Your task to perform on an android device: Go to ESPN.com Image 0: 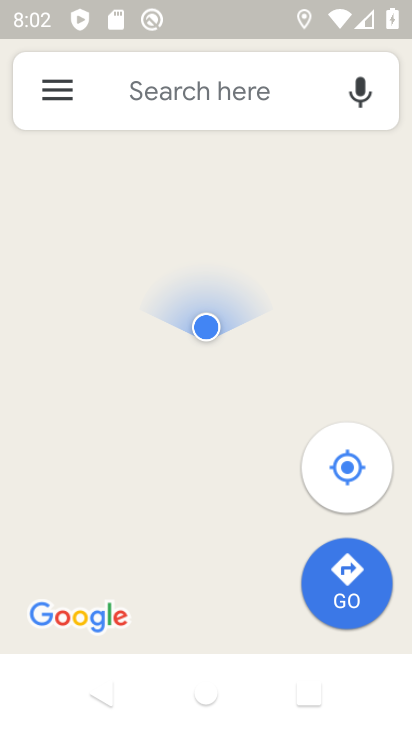
Step 0: press home button
Your task to perform on an android device: Go to ESPN.com Image 1: 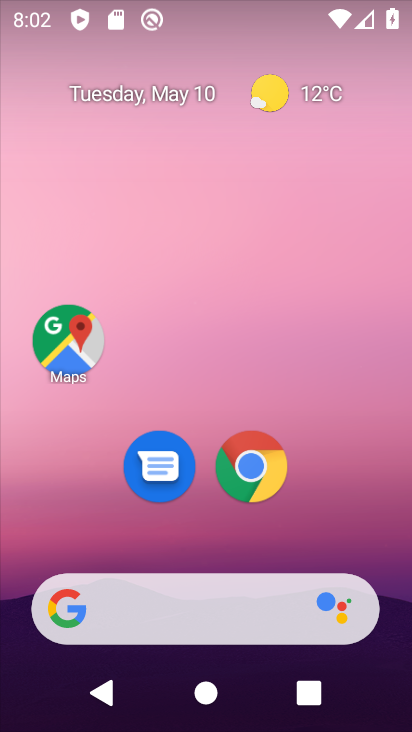
Step 1: click (252, 475)
Your task to perform on an android device: Go to ESPN.com Image 2: 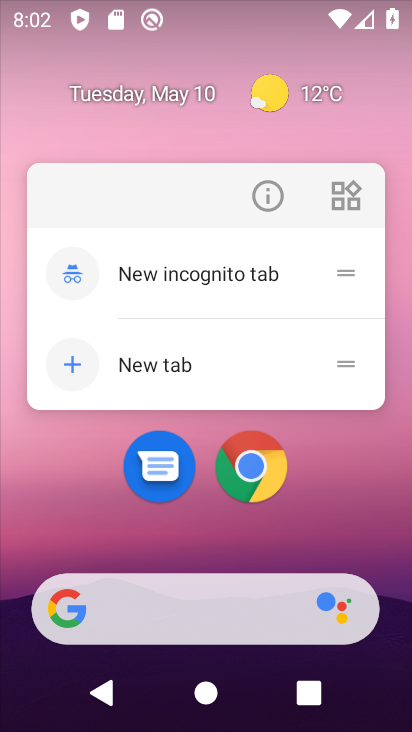
Step 2: click (240, 470)
Your task to perform on an android device: Go to ESPN.com Image 3: 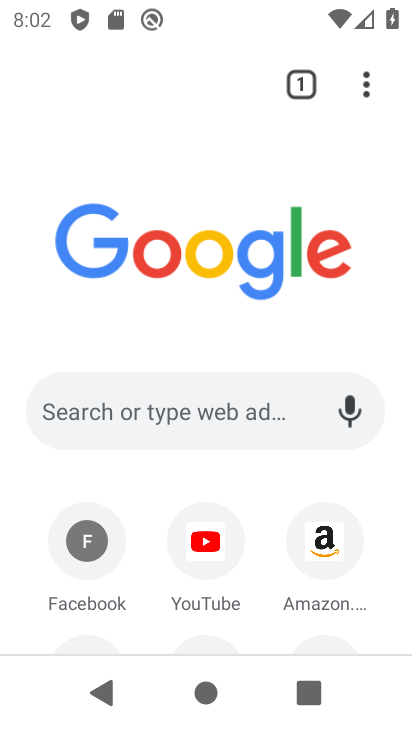
Step 3: click (223, 426)
Your task to perform on an android device: Go to ESPN.com Image 4: 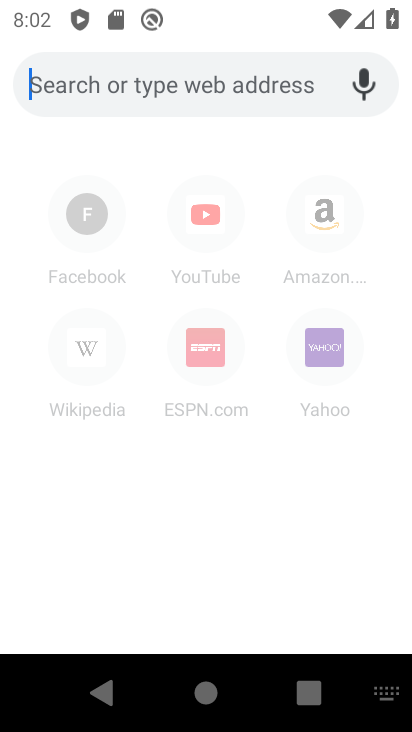
Step 4: type "ESPN.com"
Your task to perform on an android device: Go to ESPN.com Image 5: 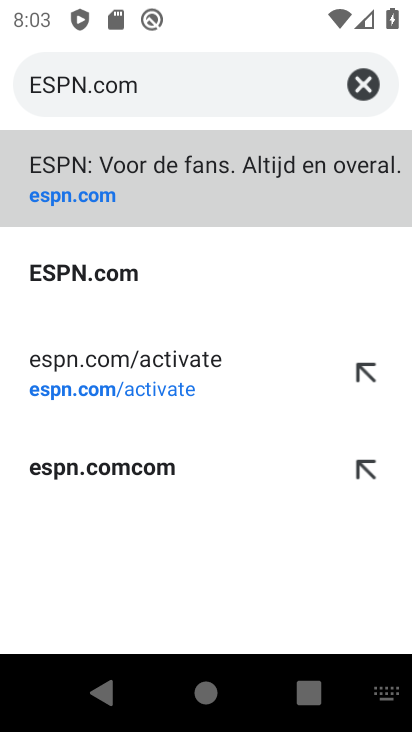
Step 5: click (102, 284)
Your task to perform on an android device: Go to ESPN.com Image 6: 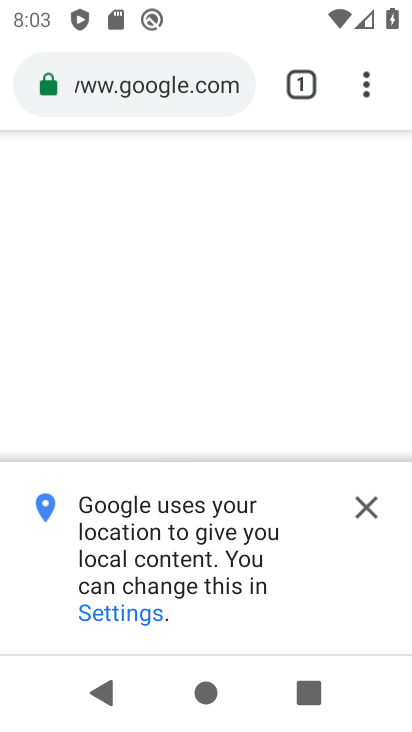
Step 6: click (365, 506)
Your task to perform on an android device: Go to ESPN.com Image 7: 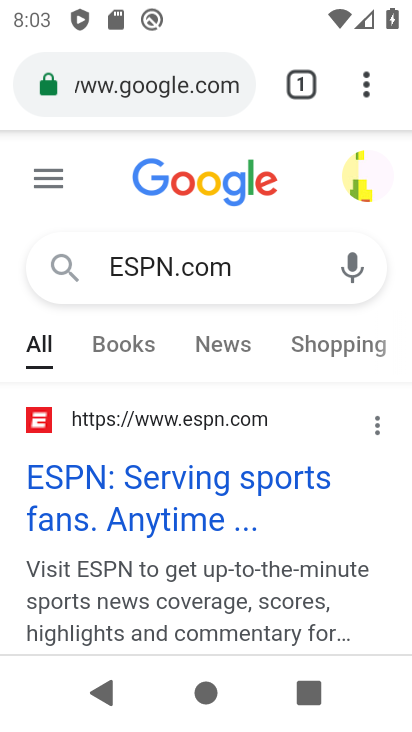
Step 7: task complete